Your task to perform on an android device: Go to location settings Image 0: 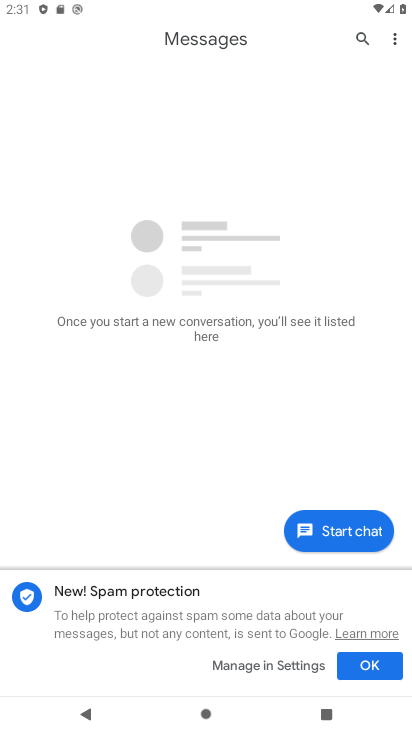
Step 0: press home button
Your task to perform on an android device: Go to location settings Image 1: 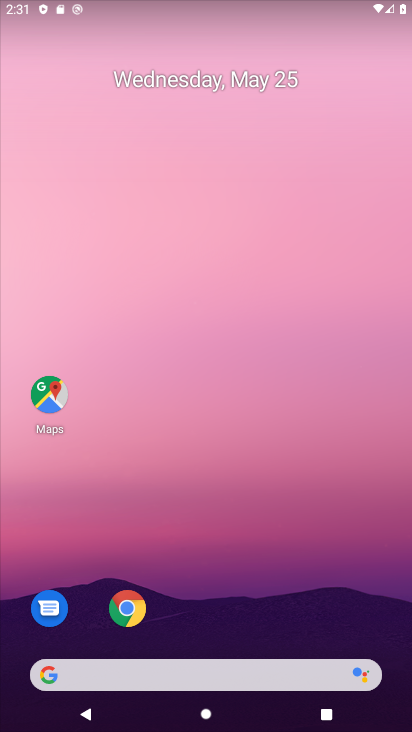
Step 1: drag from (256, 583) to (359, 16)
Your task to perform on an android device: Go to location settings Image 2: 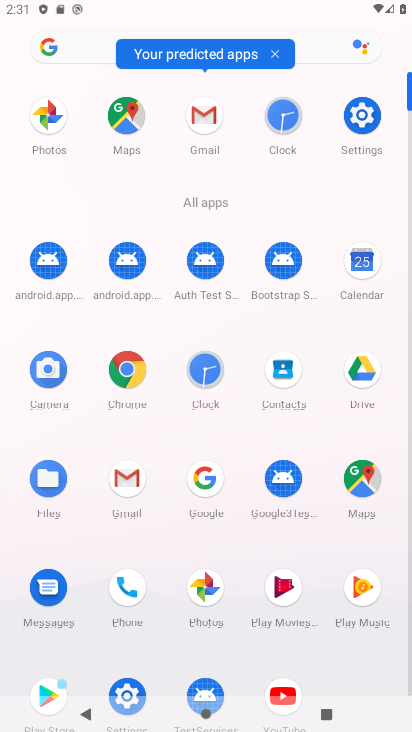
Step 2: click (362, 127)
Your task to perform on an android device: Go to location settings Image 3: 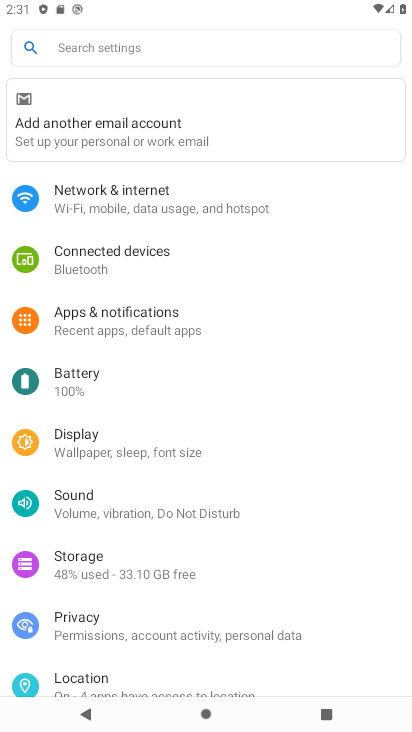
Step 3: drag from (135, 676) to (144, 592)
Your task to perform on an android device: Go to location settings Image 4: 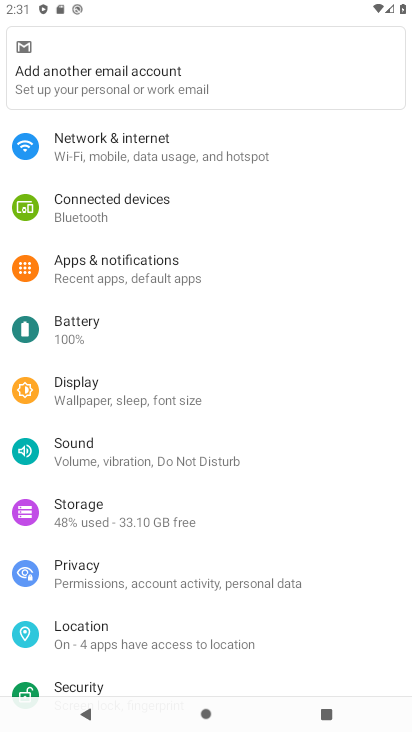
Step 4: click (67, 634)
Your task to perform on an android device: Go to location settings Image 5: 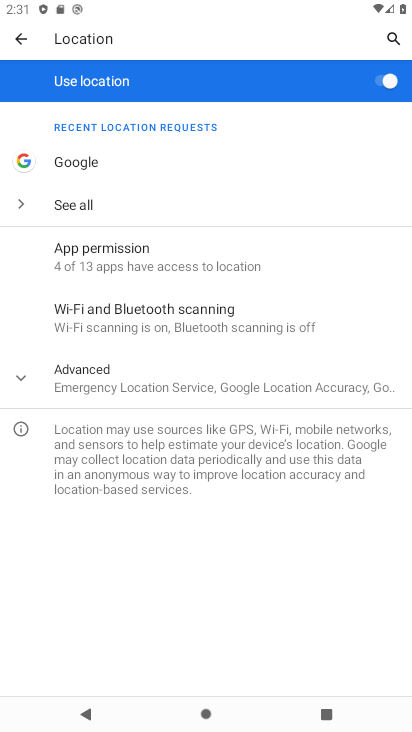
Step 5: task complete